Your task to perform on an android device: Go to privacy settings Image 0: 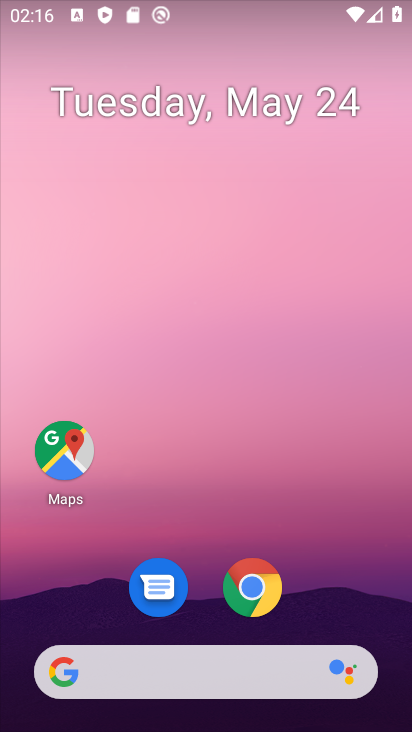
Step 0: drag from (117, 726) to (154, 36)
Your task to perform on an android device: Go to privacy settings Image 1: 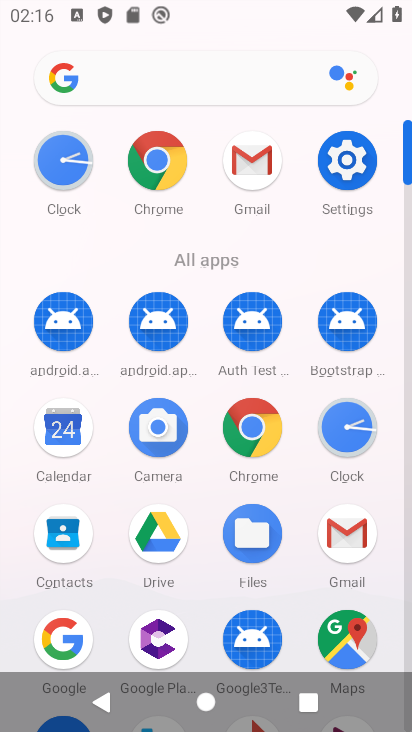
Step 1: click (341, 164)
Your task to perform on an android device: Go to privacy settings Image 2: 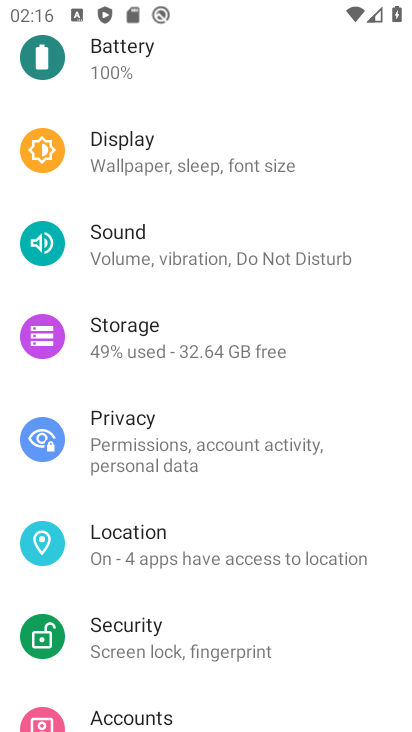
Step 2: click (188, 448)
Your task to perform on an android device: Go to privacy settings Image 3: 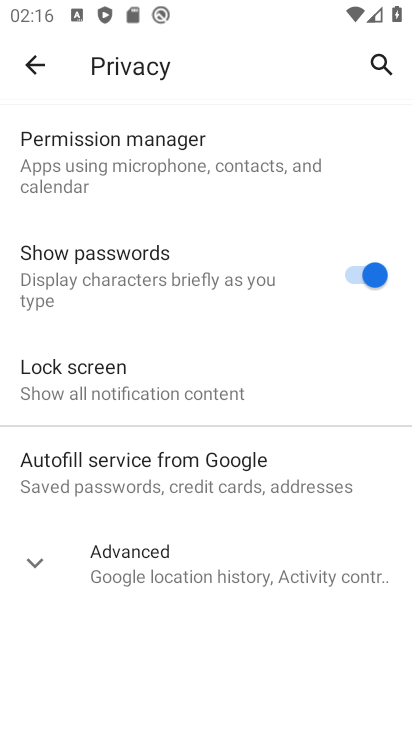
Step 3: task complete